Your task to perform on an android device: Go to ESPN.com Image 0: 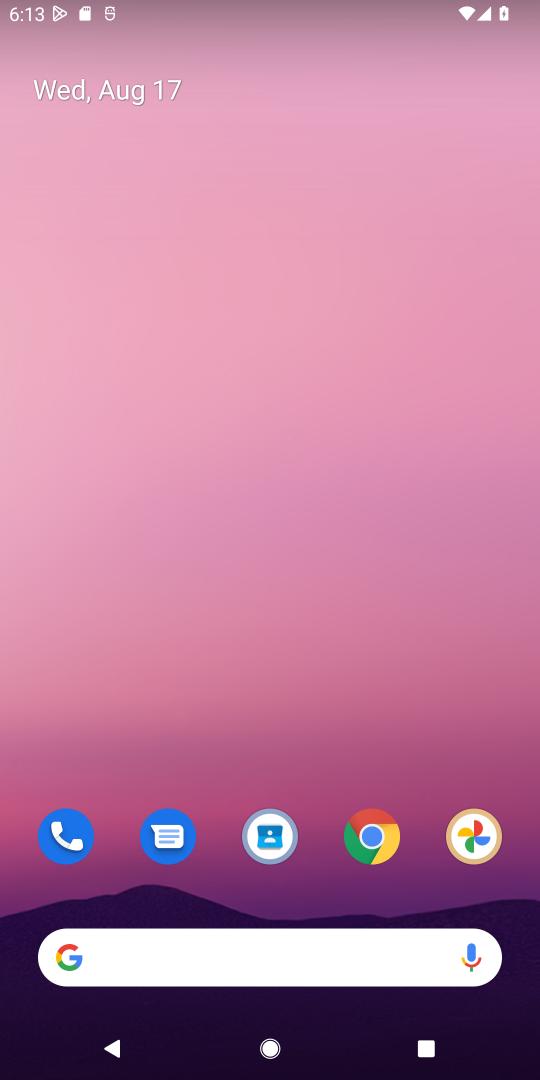
Step 0: click (315, 955)
Your task to perform on an android device: Go to ESPN.com Image 1: 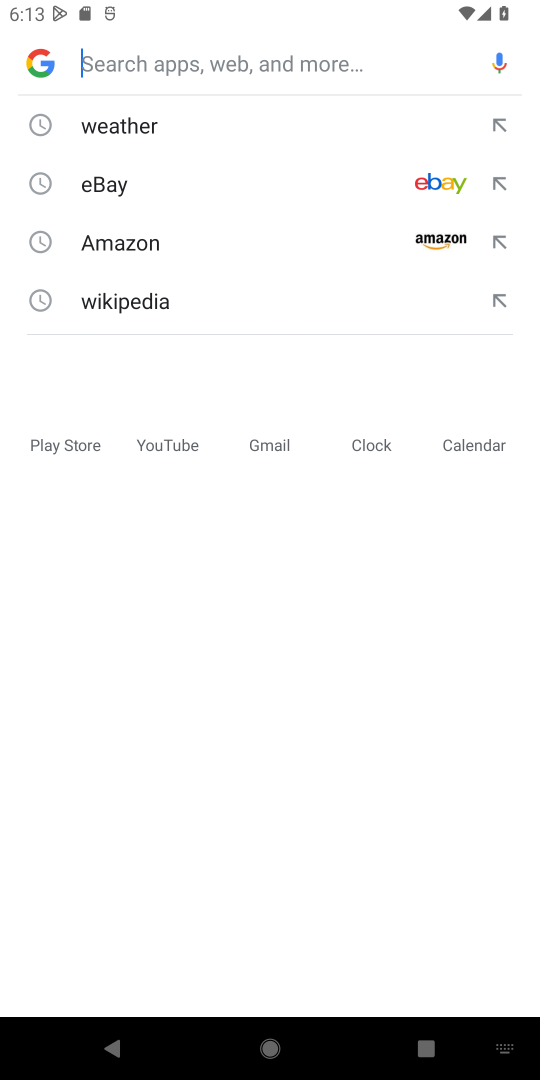
Step 1: type "ESPN.com"
Your task to perform on an android device: Go to ESPN.com Image 2: 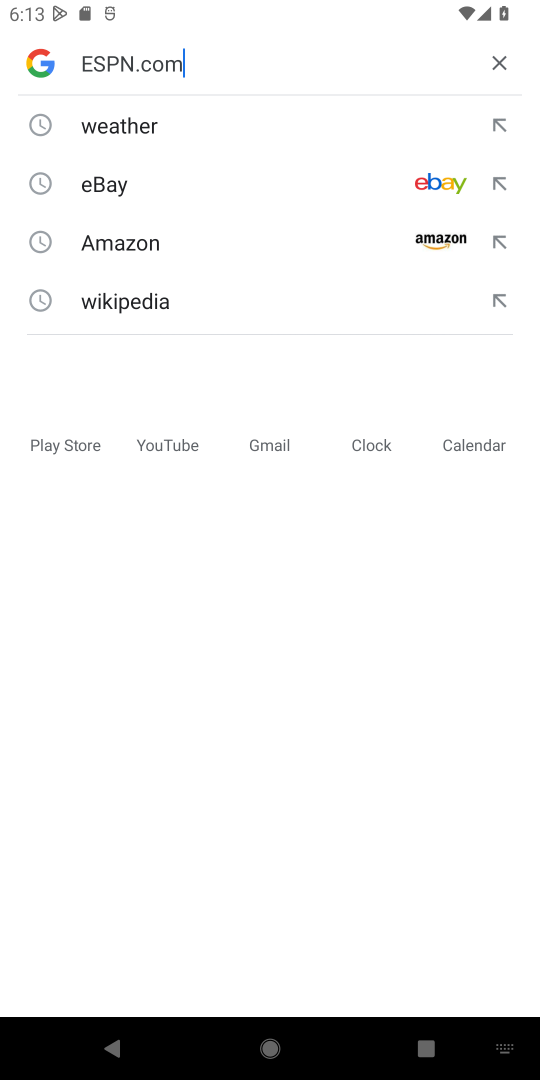
Step 2: type ""
Your task to perform on an android device: Go to ESPN.com Image 3: 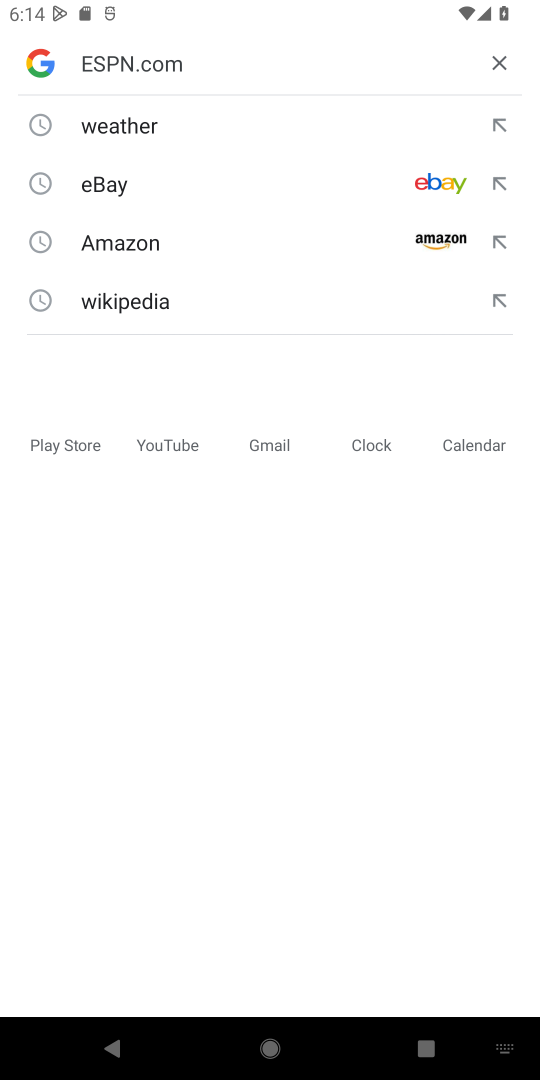
Step 3: type ""
Your task to perform on an android device: Go to ESPN.com Image 4: 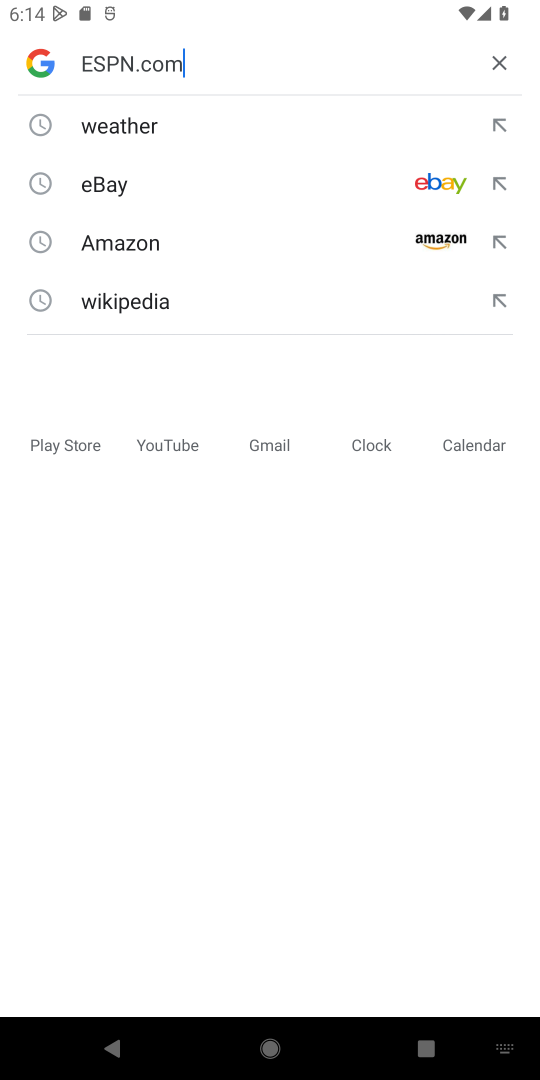
Step 4: task complete